Your task to perform on an android device: turn on bluetooth scan Image 0: 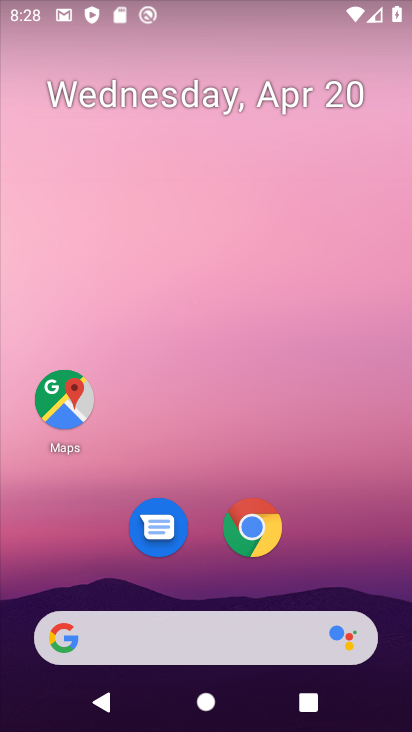
Step 0: click (372, 3)
Your task to perform on an android device: turn on bluetooth scan Image 1: 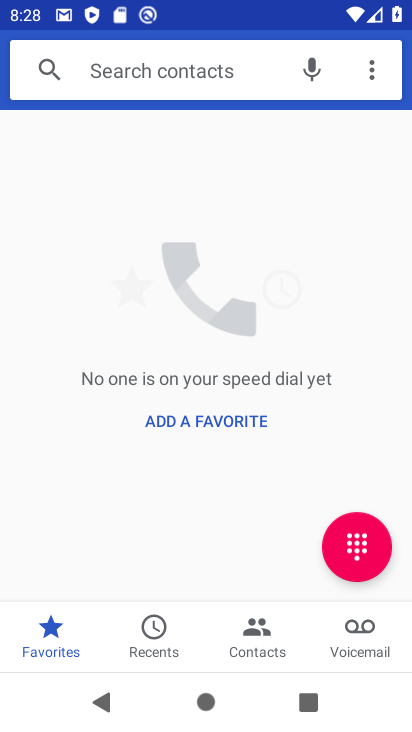
Step 1: press home button
Your task to perform on an android device: turn on bluetooth scan Image 2: 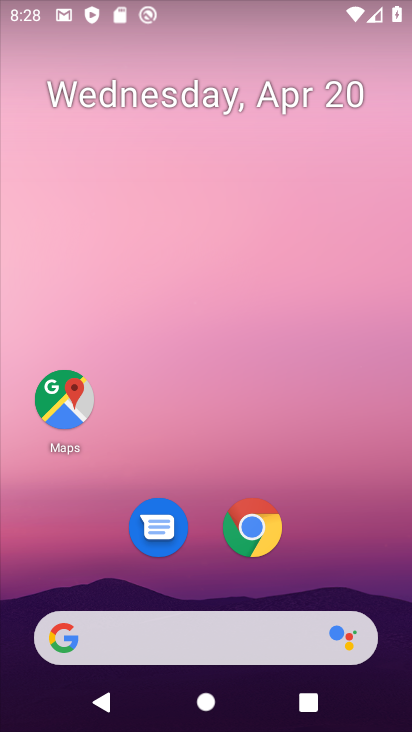
Step 2: drag from (333, 574) to (349, 27)
Your task to perform on an android device: turn on bluetooth scan Image 3: 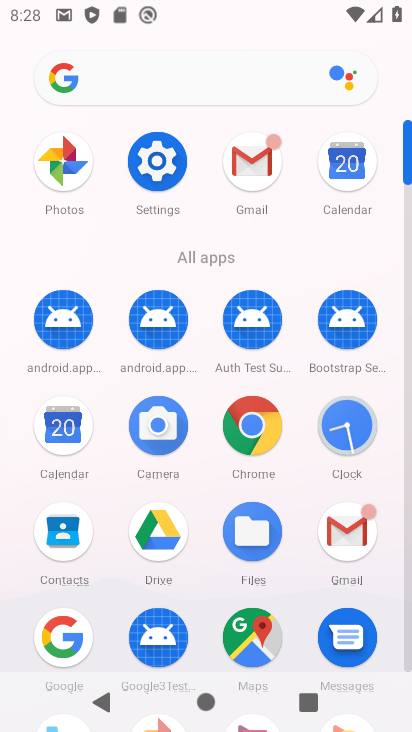
Step 3: click (158, 155)
Your task to perform on an android device: turn on bluetooth scan Image 4: 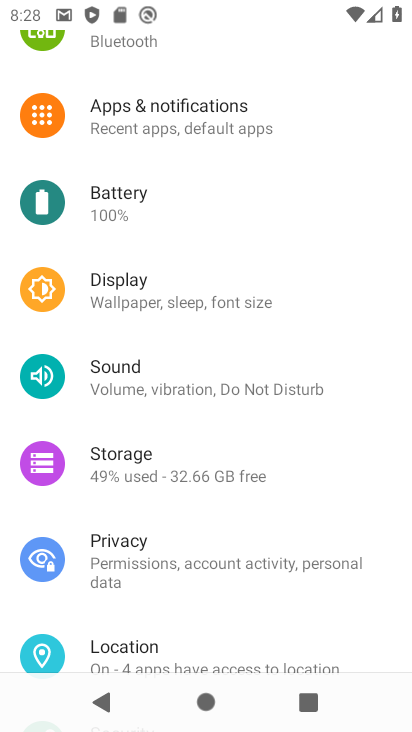
Step 4: drag from (248, 393) to (289, 60)
Your task to perform on an android device: turn on bluetooth scan Image 5: 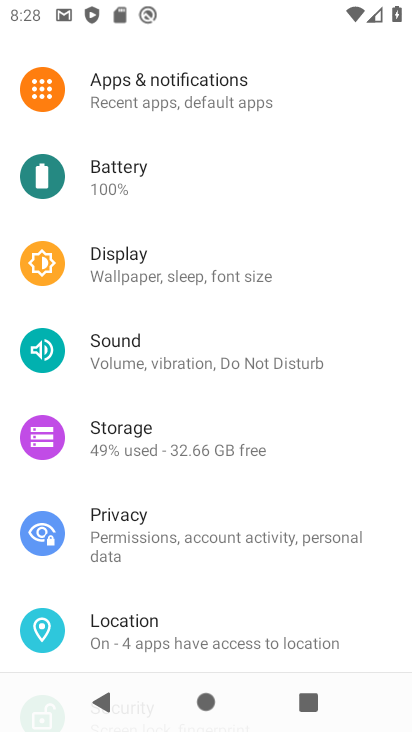
Step 5: drag from (232, 449) to (251, 261)
Your task to perform on an android device: turn on bluetooth scan Image 6: 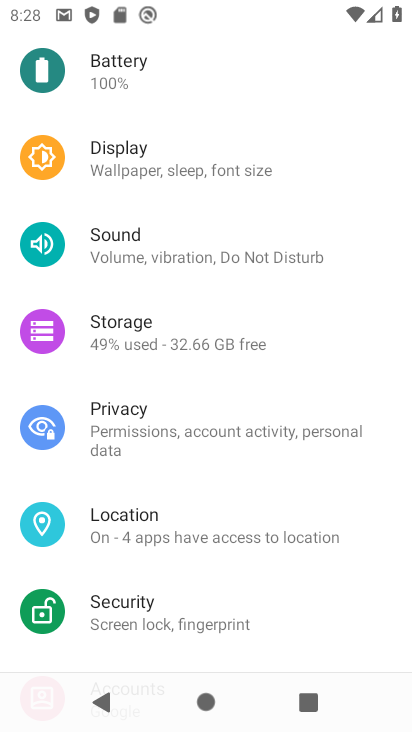
Step 6: drag from (255, 556) to (255, 500)
Your task to perform on an android device: turn on bluetooth scan Image 7: 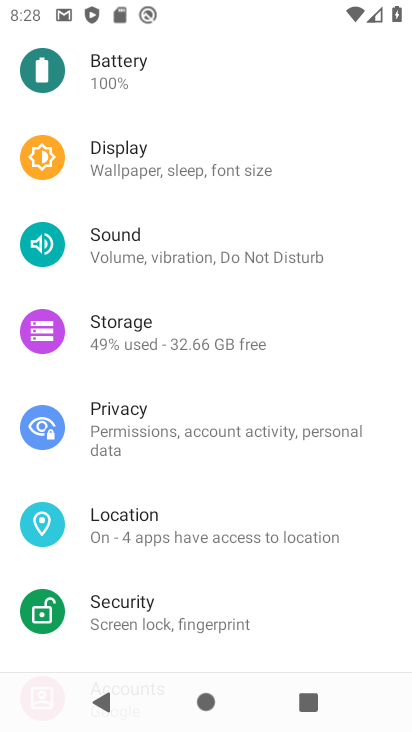
Step 7: click (216, 525)
Your task to perform on an android device: turn on bluetooth scan Image 8: 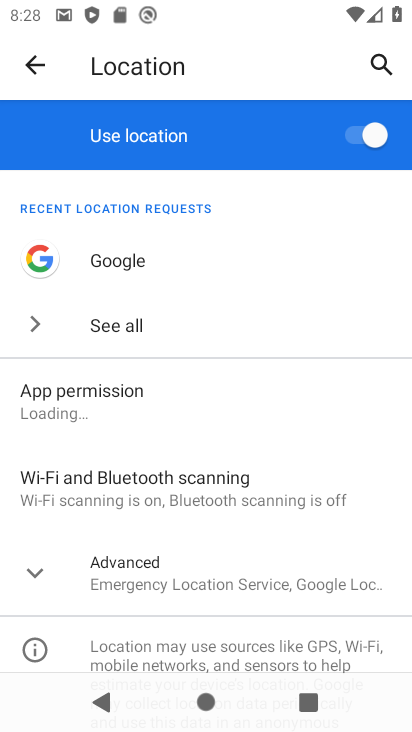
Step 8: click (202, 505)
Your task to perform on an android device: turn on bluetooth scan Image 9: 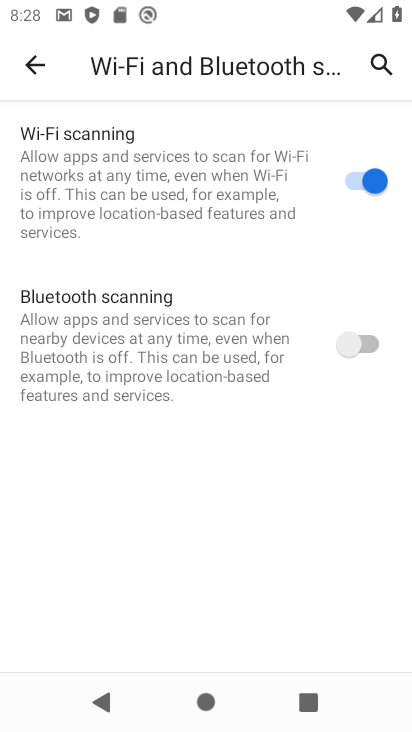
Step 9: click (320, 373)
Your task to perform on an android device: turn on bluetooth scan Image 10: 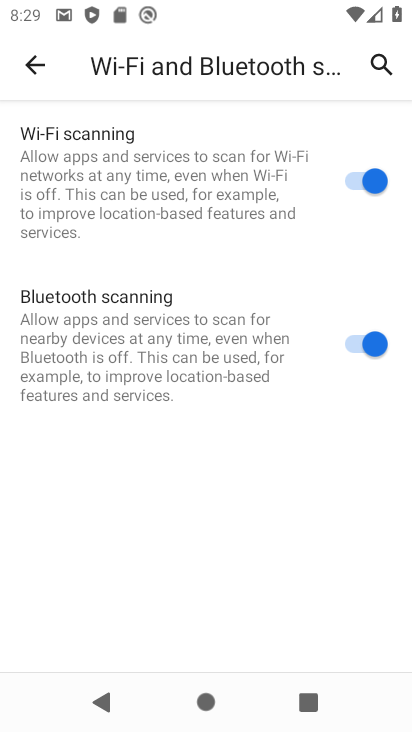
Step 10: task complete